Your task to perform on an android device: see sites visited before in the chrome app Image 0: 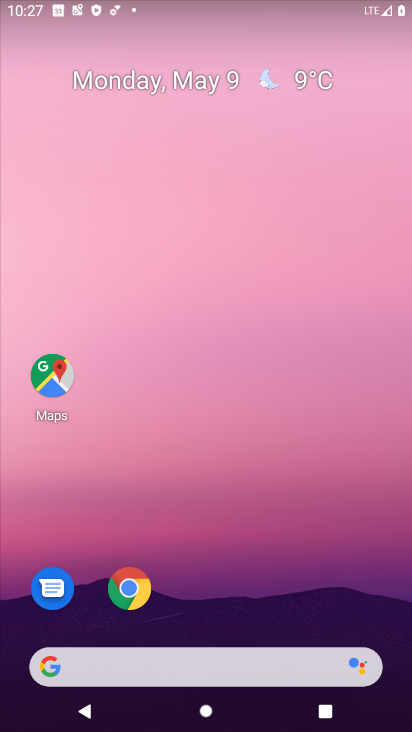
Step 0: press home button
Your task to perform on an android device: see sites visited before in the chrome app Image 1: 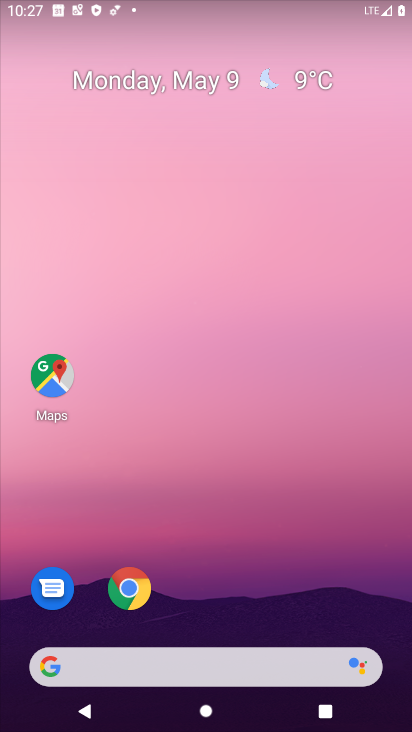
Step 1: drag from (140, 675) to (309, 96)
Your task to perform on an android device: see sites visited before in the chrome app Image 2: 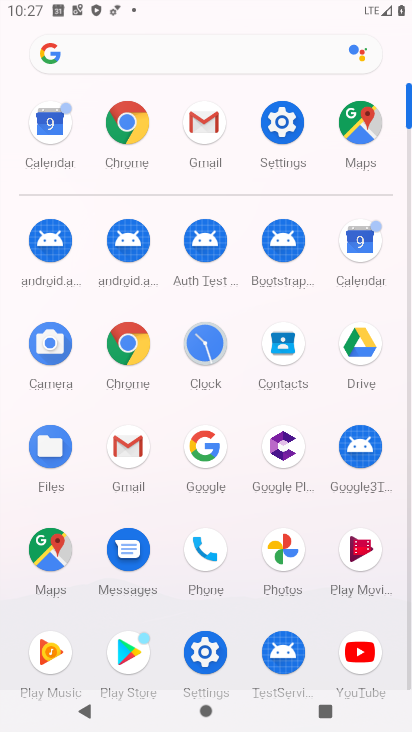
Step 2: click (130, 134)
Your task to perform on an android device: see sites visited before in the chrome app Image 3: 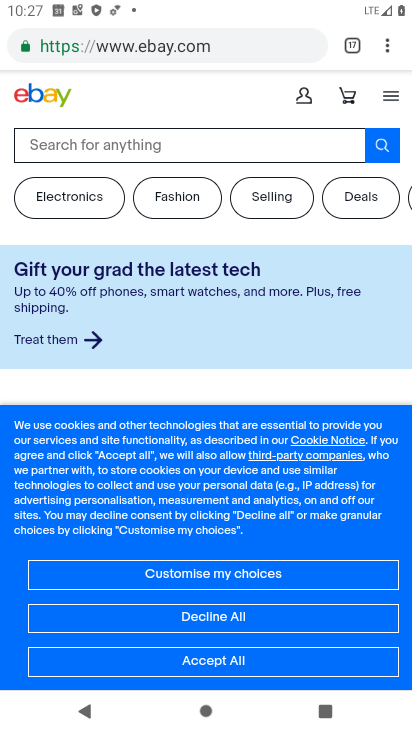
Step 3: drag from (385, 51) to (260, 216)
Your task to perform on an android device: see sites visited before in the chrome app Image 4: 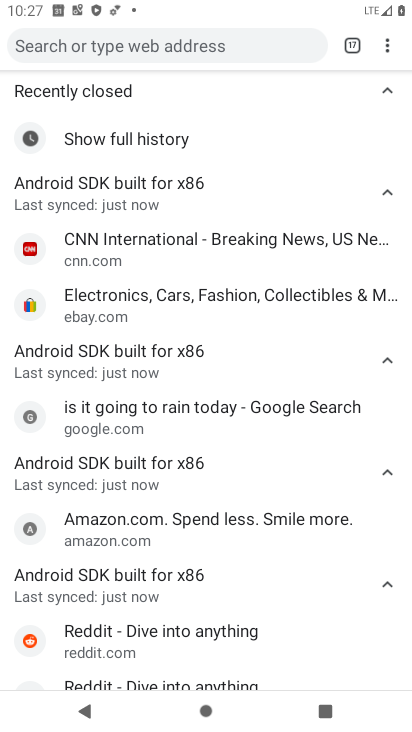
Step 4: click (149, 144)
Your task to perform on an android device: see sites visited before in the chrome app Image 5: 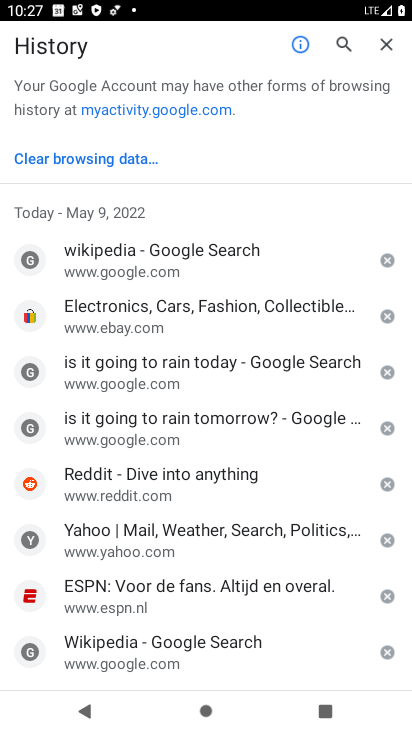
Step 5: task complete